Your task to perform on an android device: Open Google Chrome and open the bookmarks view Image 0: 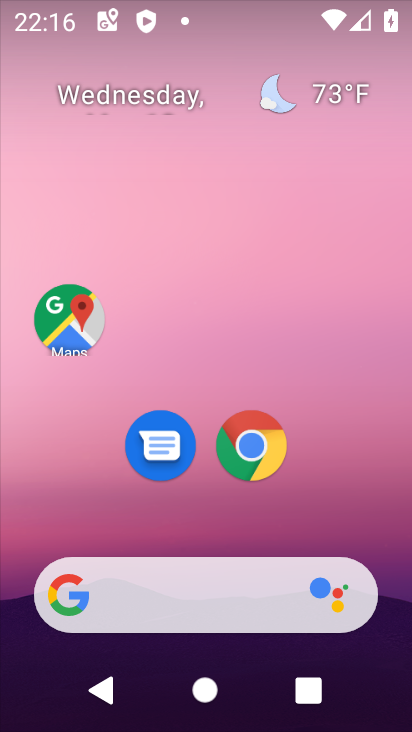
Step 0: drag from (284, 513) to (272, 241)
Your task to perform on an android device: Open Google Chrome and open the bookmarks view Image 1: 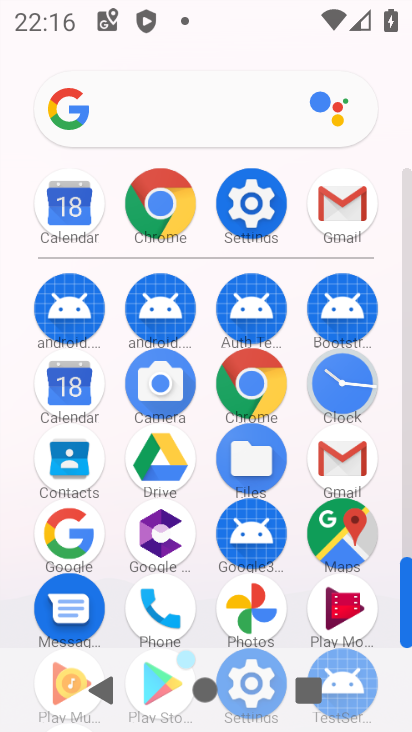
Step 1: click (255, 375)
Your task to perform on an android device: Open Google Chrome and open the bookmarks view Image 2: 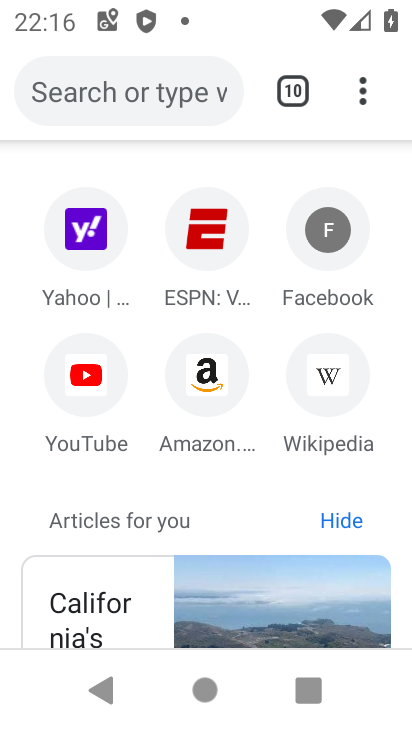
Step 2: click (357, 93)
Your task to perform on an android device: Open Google Chrome and open the bookmarks view Image 3: 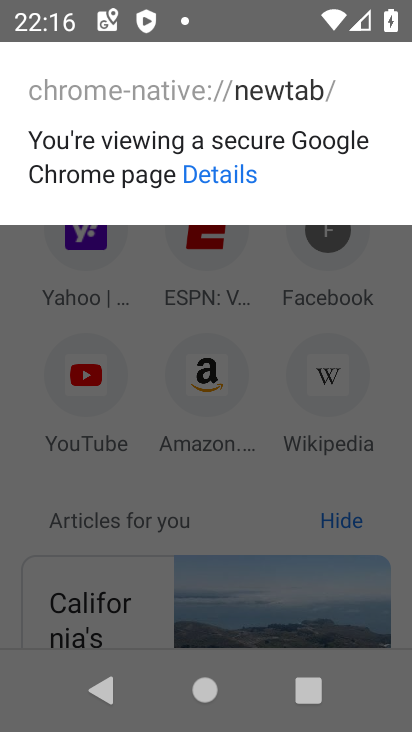
Step 3: press back button
Your task to perform on an android device: Open Google Chrome and open the bookmarks view Image 4: 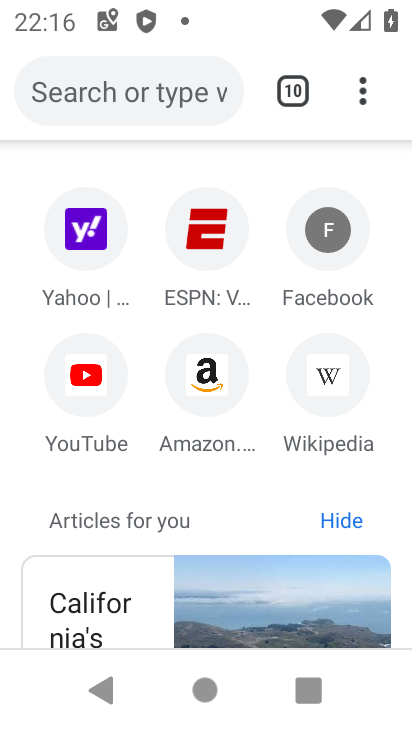
Step 4: click (365, 81)
Your task to perform on an android device: Open Google Chrome and open the bookmarks view Image 5: 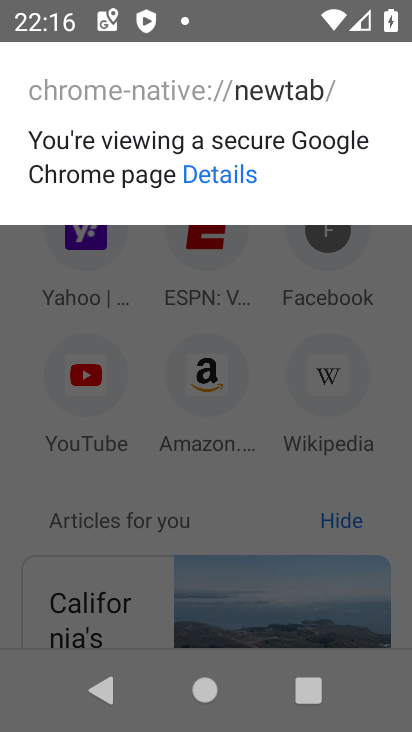
Step 5: press back button
Your task to perform on an android device: Open Google Chrome and open the bookmarks view Image 6: 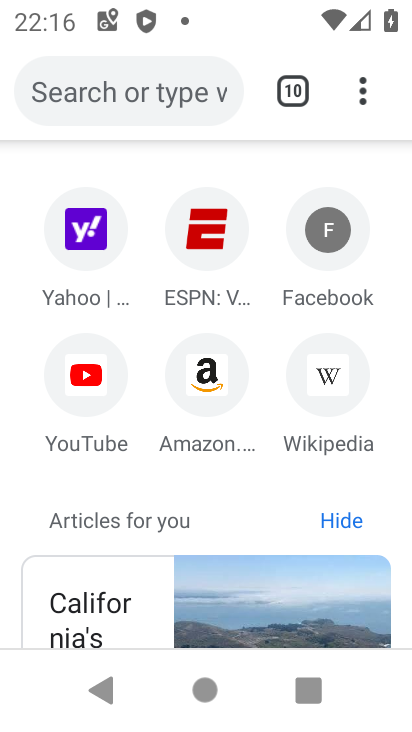
Step 6: click (392, 98)
Your task to perform on an android device: Open Google Chrome and open the bookmarks view Image 7: 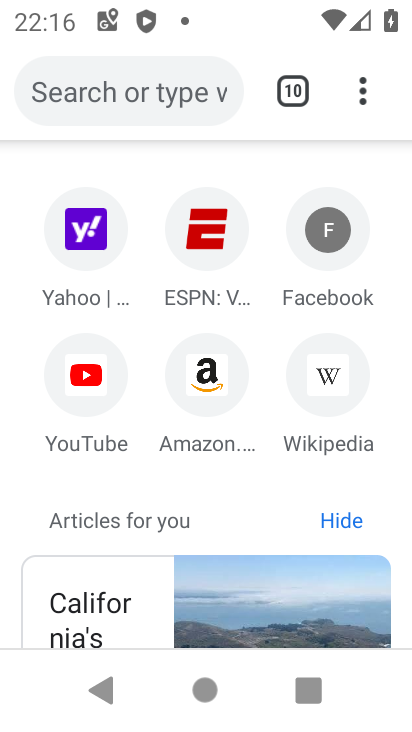
Step 7: click (372, 84)
Your task to perform on an android device: Open Google Chrome and open the bookmarks view Image 8: 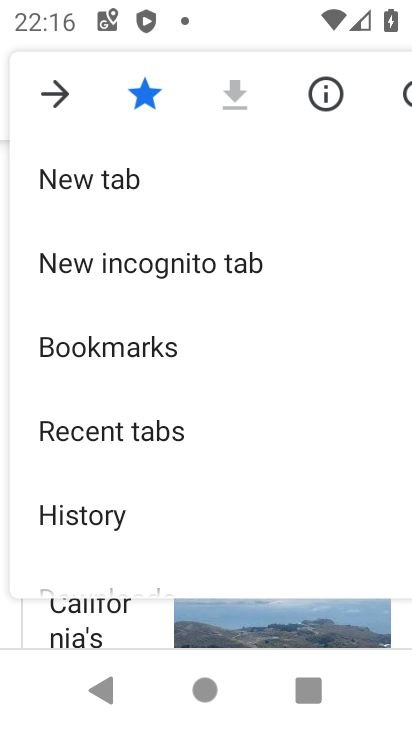
Step 8: click (76, 362)
Your task to perform on an android device: Open Google Chrome and open the bookmarks view Image 9: 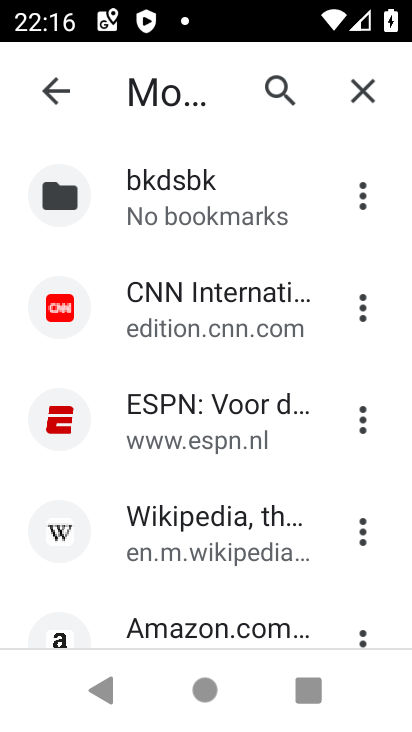
Step 9: task complete